Your task to perform on an android device: turn on improve location accuracy Image 0: 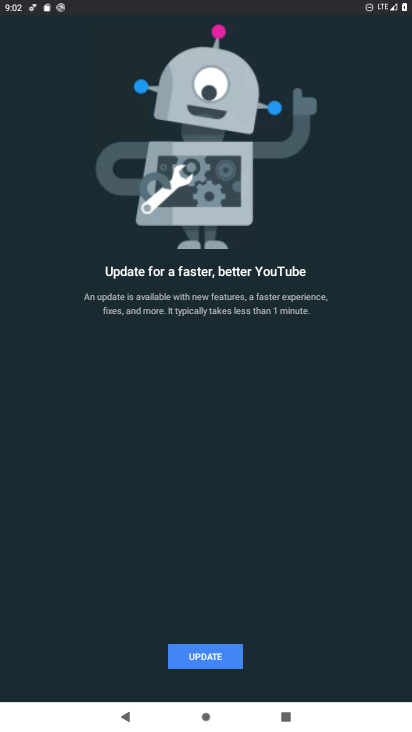
Step 0: drag from (262, 8) to (213, 545)
Your task to perform on an android device: turn on improve location accuracy Image 1: 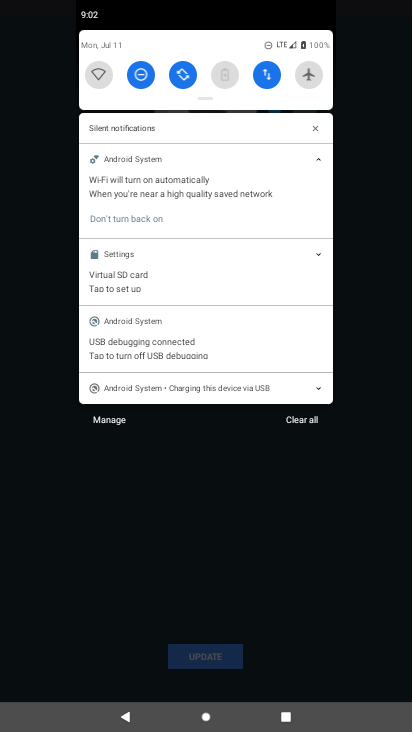
Step 1: drag from (208, 47) to (182, 587)
Your task to perform on an android device: turn on improve location accuracy Image 2: 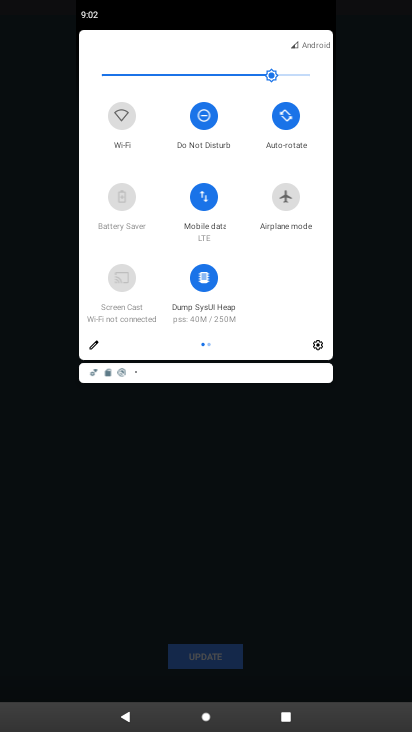
Step 2: click (318, 343)
Your task to perform on an android device: turn on improve location accuracy Image 3: 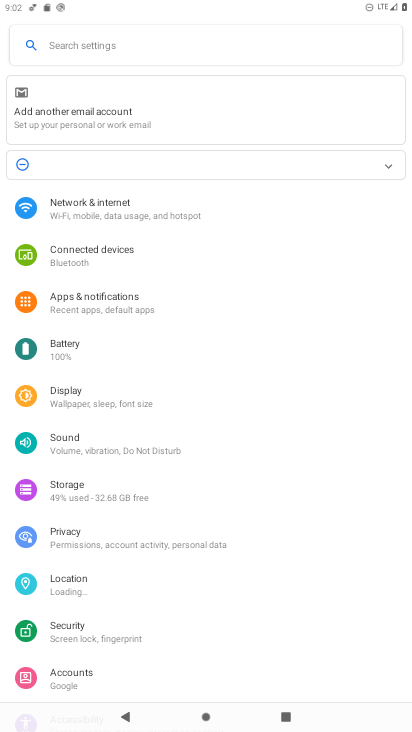
Step 3: click (80, 581)
Your task to perform on an android device: turn on improve location accuracy Image 4: 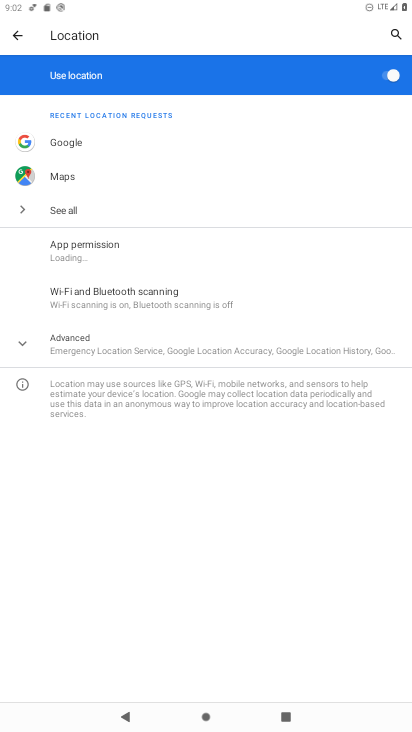
Step 4: click (125, 356)
Your task to perform on an android device: turn on improve location accuracy Image 5: 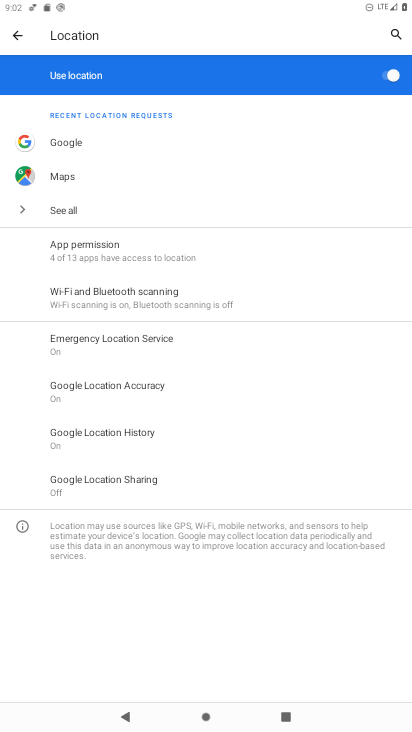
Step 5: click (145, 387)
Your task to perform on an android device: turn on improve location accuracy Image 6: 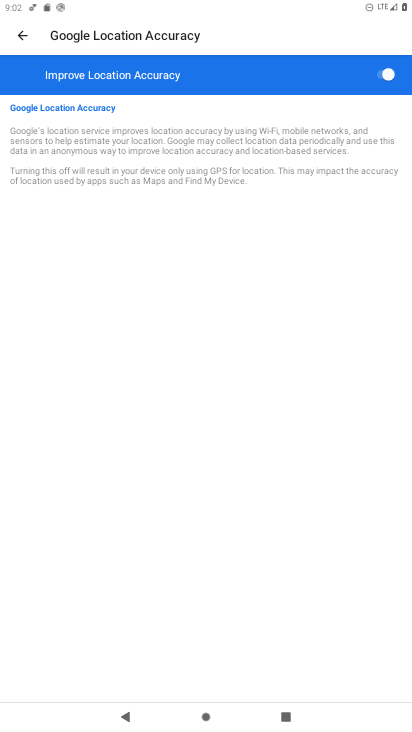
Step 6: task complete